Your task to perform on an android device: Open Google Chrome Image 0: 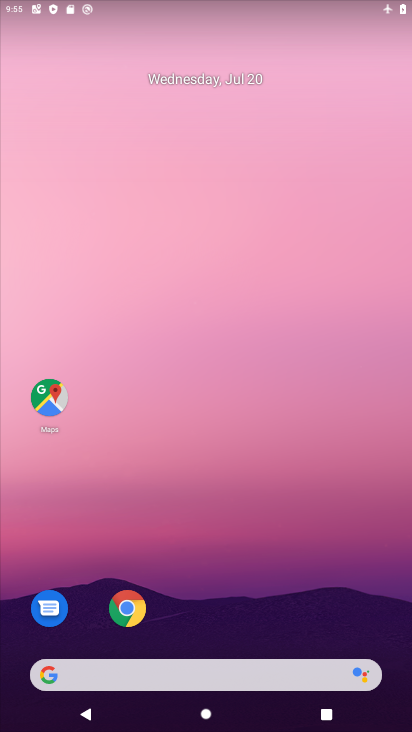
Step 0: click (107, 610)
Your task to perform on an android device: Open Google Chrome Image 1: 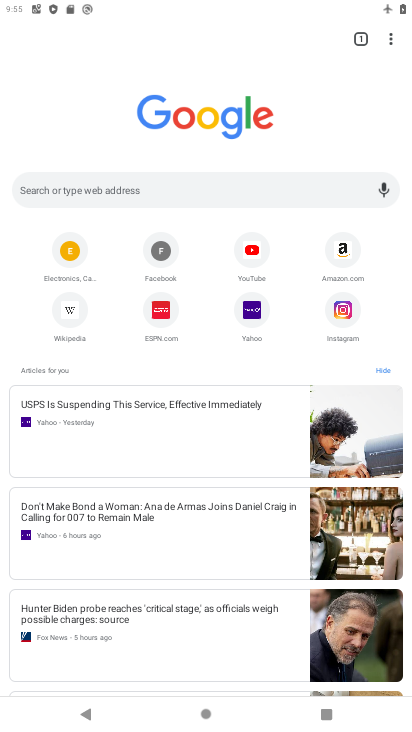
Step 1: task complete